Your task to perform on an android device: toggle priority inbox in the gmail app Image 0: 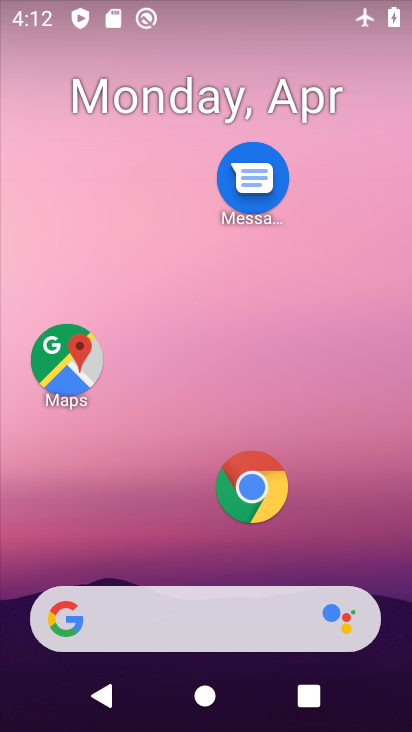
Step 0: drag from (158, 562) to (325, 23)
Your task to perform on an android device: toggle priority inbox in the gmail app Image 1: 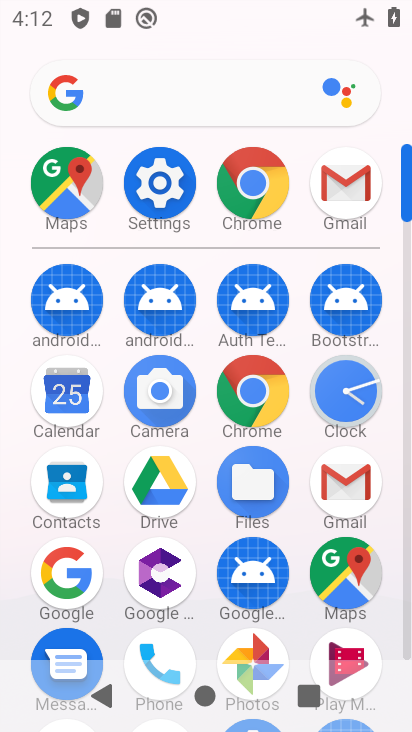
Step 1: click (346, 468)
Your task to perform on an android device: toggle priority inbox in the gmail app Image 2: 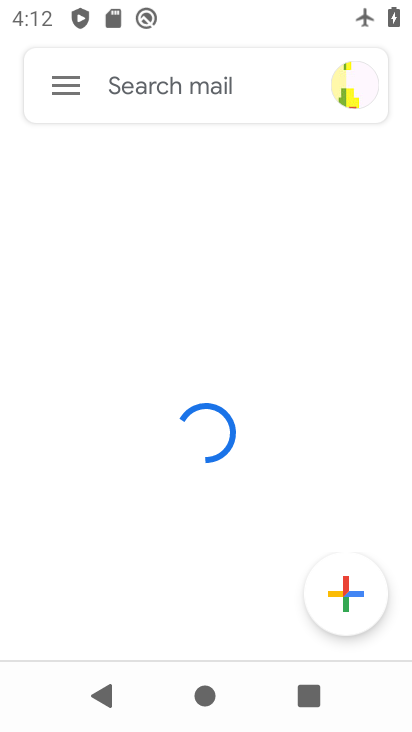
Step 2: click (63, 84)
Your task to perform on an android device: toggle priority inbox in the gmail app Image 3: 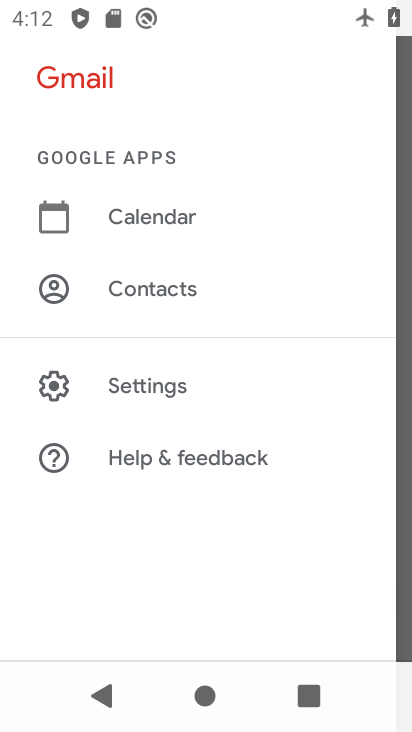
Step 3: click (110, 391)
Your task to perform on an android device: toggle priority inbox in the gmail app Image 4: 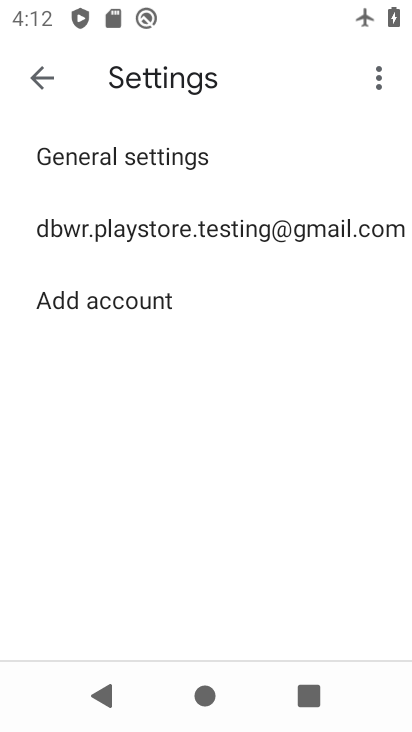
Step 4: click (162, 235)
Your task to perform on an android device: toggle priority inbox in the gmail app Image 5: 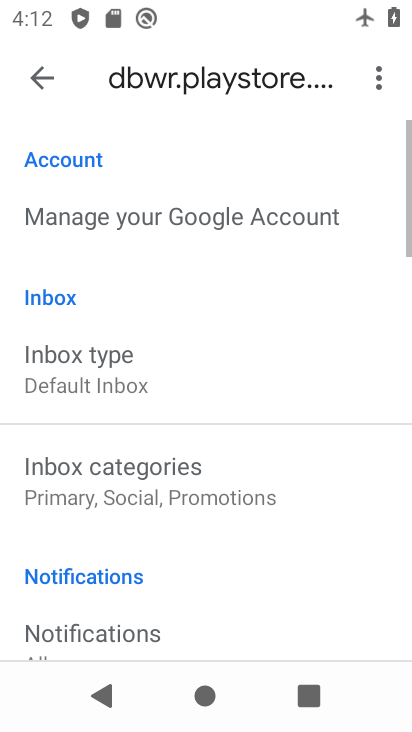
Step 5: click (152, 381)
Your task to perform on an android device: toggle priority inbox in the gmail app Image 6: 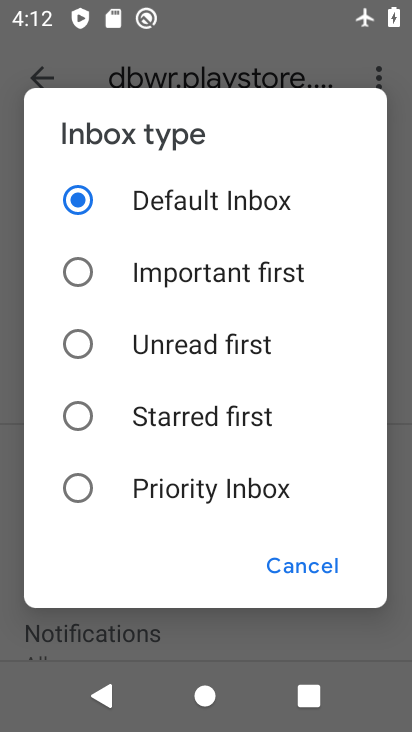
Step 6: click (69, 483)
Your task to perform on an android device: toggle priority inbox in the gmail app Image 7: 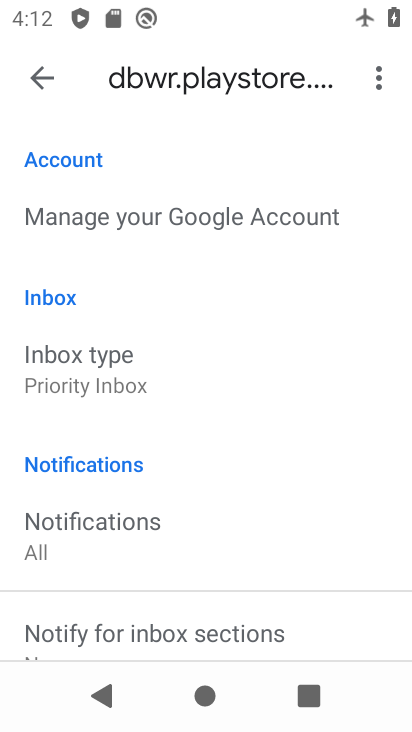
Step 7: task complete